Your task to perform on an android device: toggle notification dots Image 0: 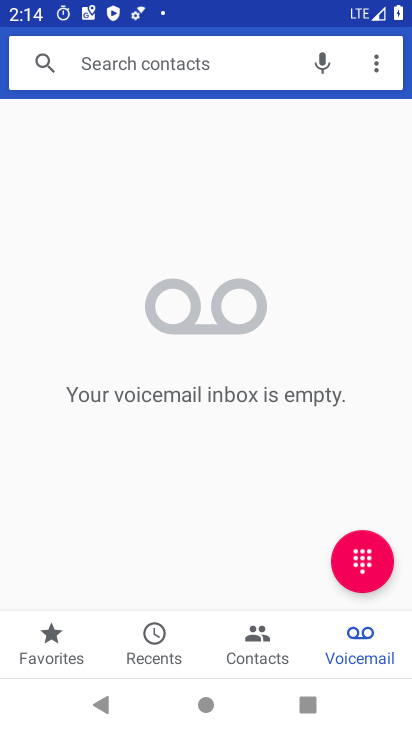
Step 0: press home button
Your task to perform on an android device: toggle notification dots Image 1: 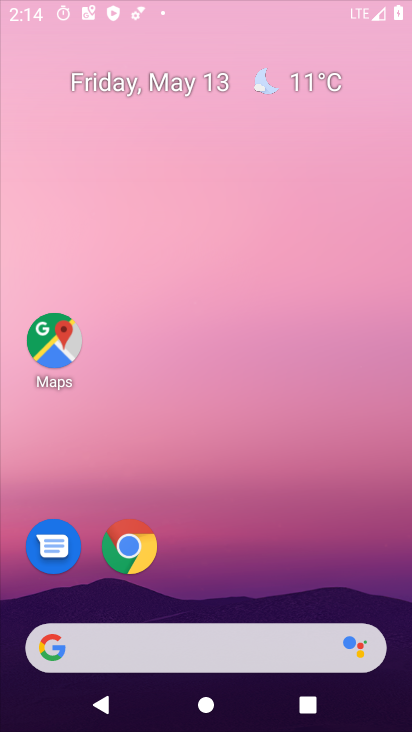
Step 1: drag from (234, 612) to (238, 176)
Your task to perform on an android device: toggle notification dots Image 2: 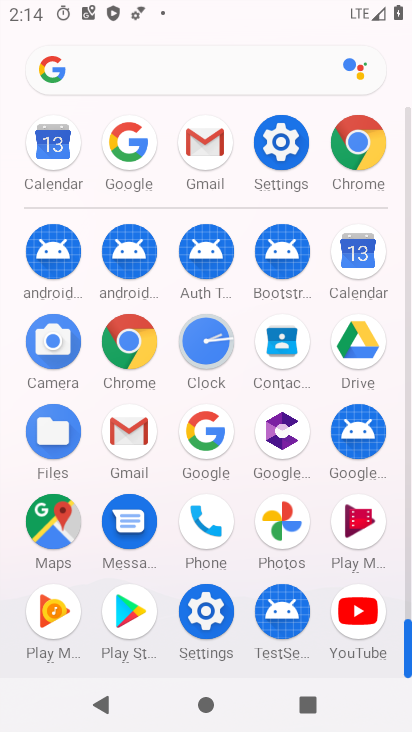
Step 2: click (264, 167)
Your task to perform on an android device: toggle notification dots Image 3: 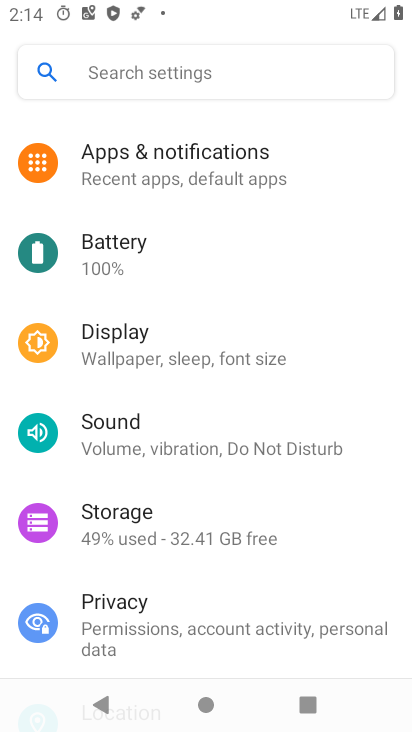
Step 3: click (242, 179)
Your task to perform on an android device: toggle notification dots Image 4: 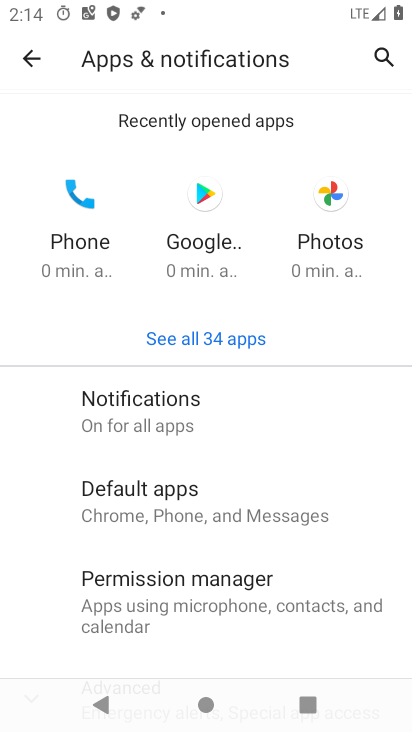
Step 4: click (235, 418)
Your task to perform on an android device: toggle notification dots Image 5: 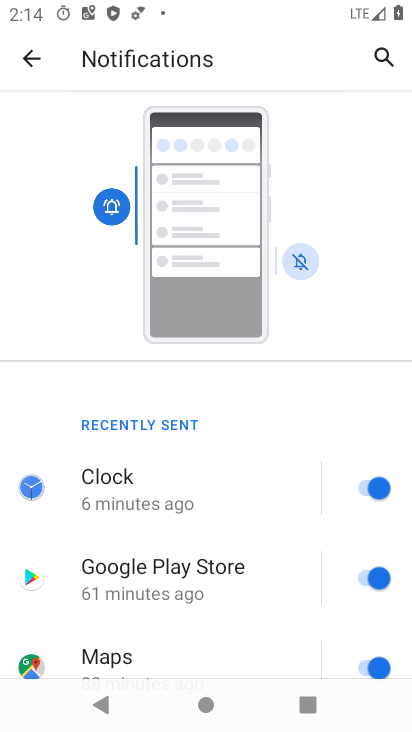
Step 5: drag from (222, 464) to (235, 161)
Your task to perform on an android device: toggle notification dots Image 6: 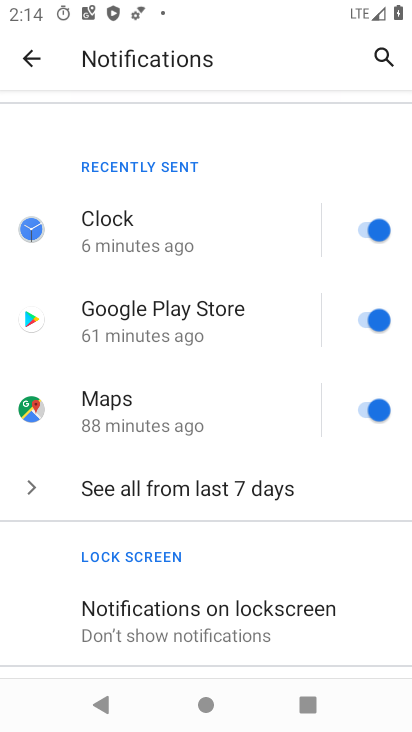
Step 6: click (195, 260)
Your task to perform on an android device: toggle notification dots Image 7: 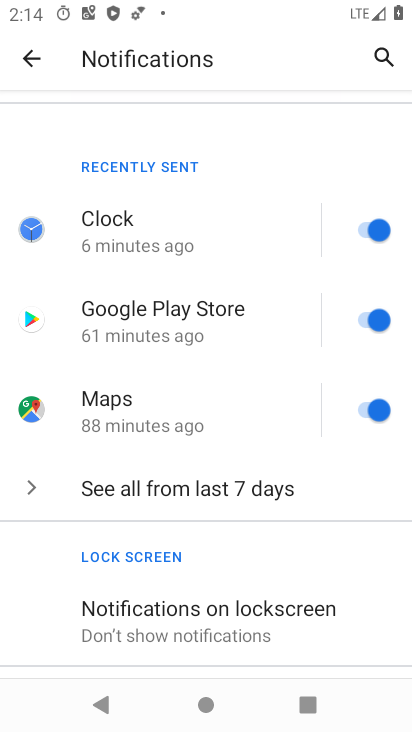
Step 7: drag from (178, 587) to (220, 188)
Your task to perform on an android device: toggle notification dots Image 8: 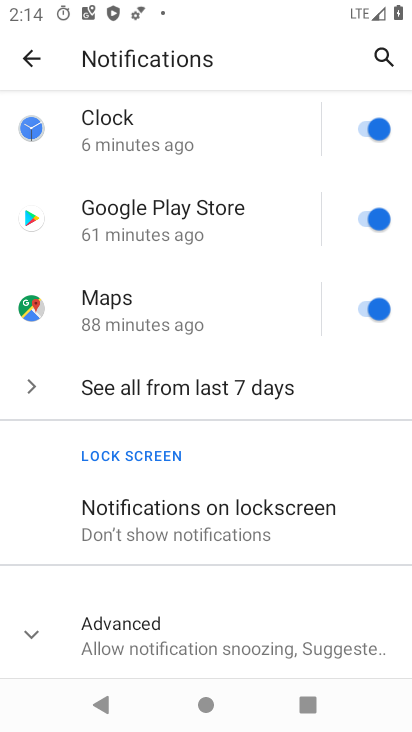
Step 8: click (184, 631)
Your task to perform on an android device: toggle notification dots Image 9: 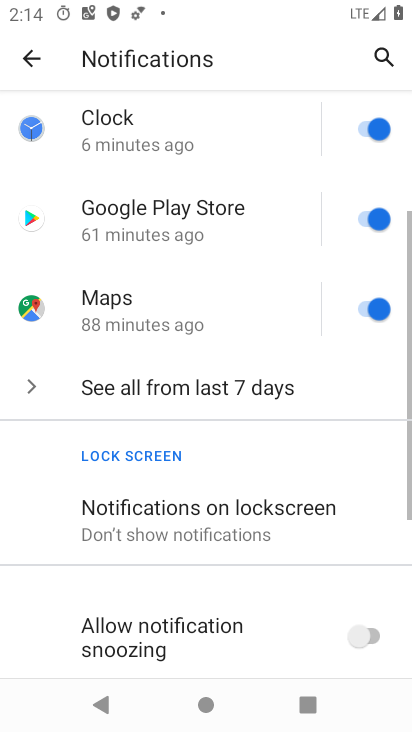
Step 9: drag from (209, 546) to (280, 132)
Your task to perform on an android device: toggle notification dots Image 10: 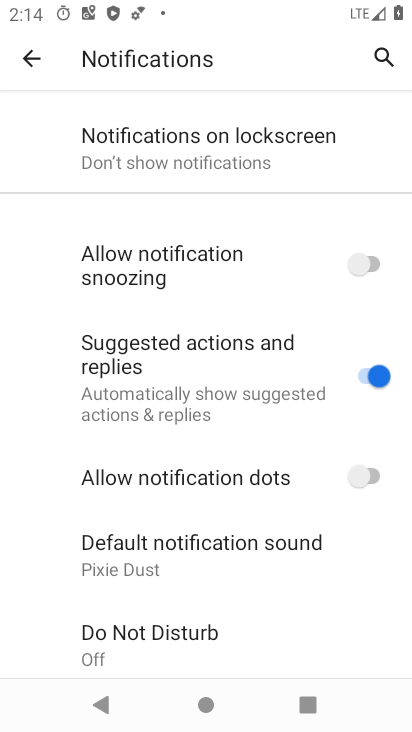
Step 10: click (285, 466)
Your task to perform on an android device: toggle notification dots Image 11: 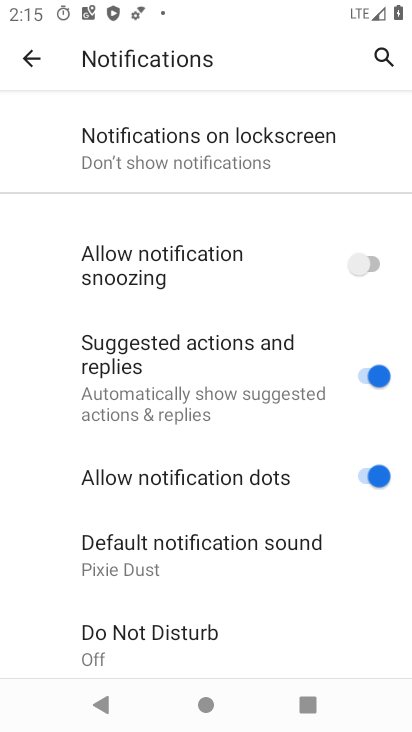
Step 11: task complete